Your task to perform on an android device: Go to network settings Image 0: 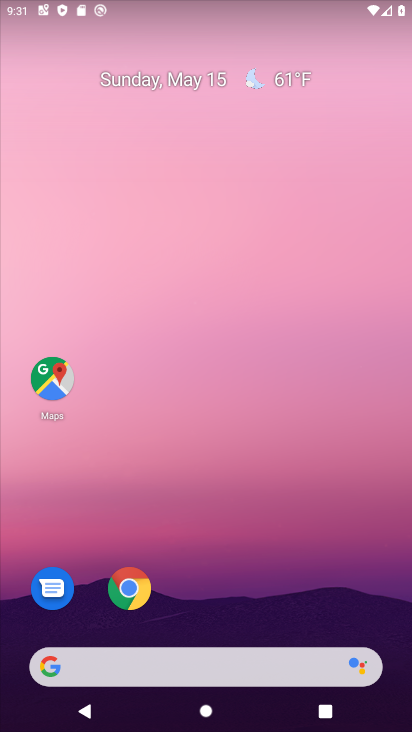
Step 0: drag from (246, 611) to (274, 162)
Your task to perform on an android device: Go to network settings Image 1: 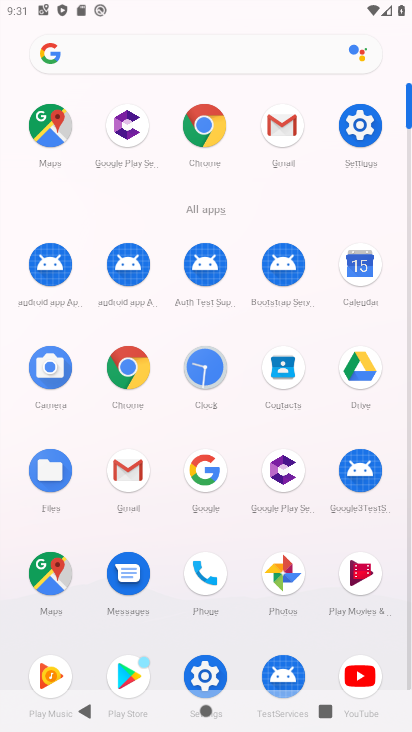
Step 1: click (363, 134)
Your task to perform on an android device: Go to network settings Image 2: 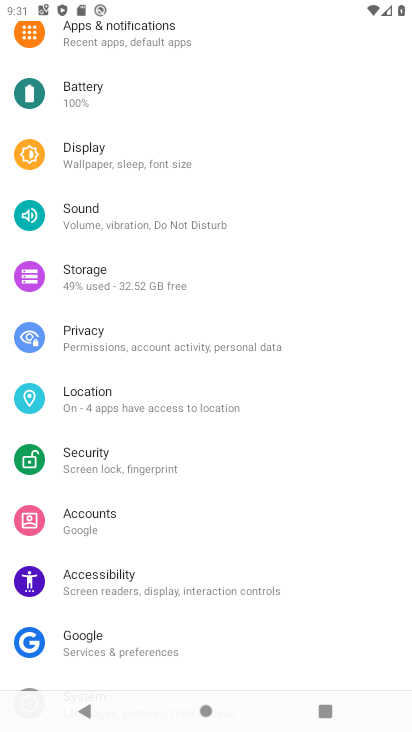
Step 2: drag from (238, 142) to (224, 501)
Your task to perform on an android device: Go to network settings Image 3: 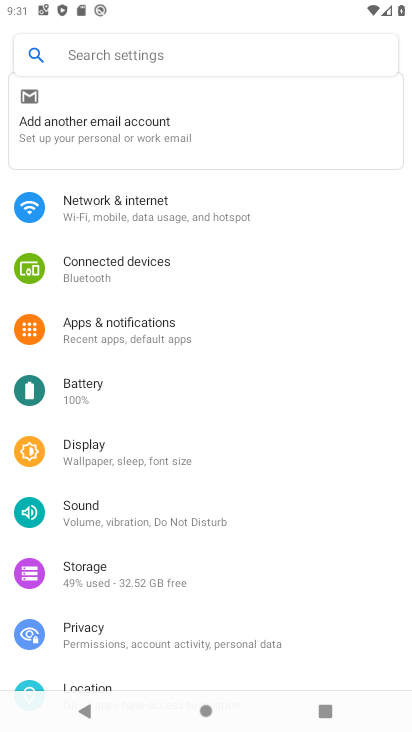
Step 3: click (171, 215)
Your task to perform on an android device: Go to network settings Image 4: 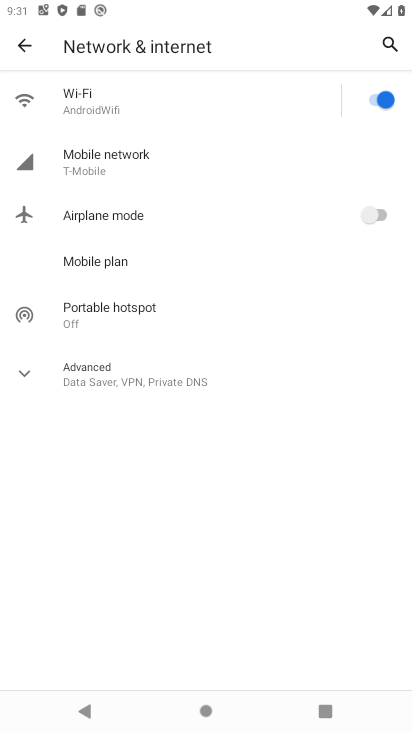
Step 4: task complete